Your task to perform on an android device: Open calendar and show me the fourth week of next month Image 0: 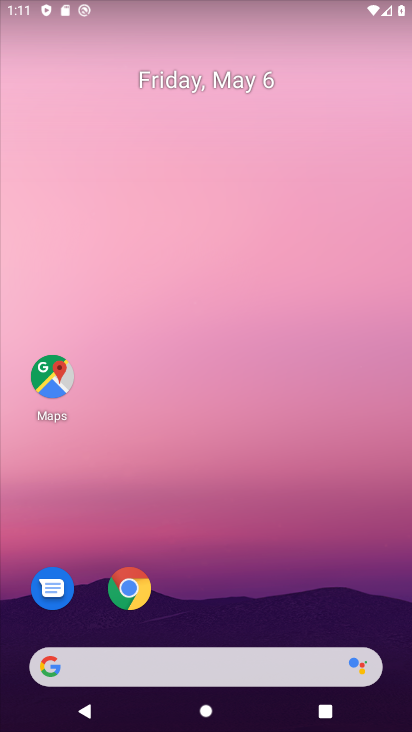
Step 0: drag from (359, 569) to (357, 42)
Your task to perform on an android device: Open calendar and show me the fourth week of next month Image 1: 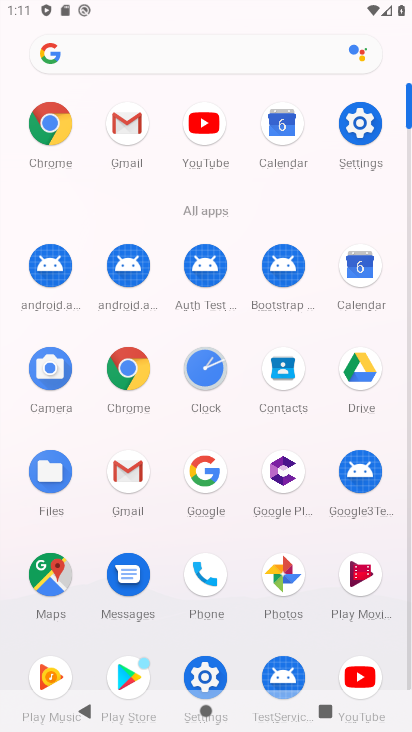
Step 1: click (361, 265)
Your task to perform on an android device: Open calendar and show me the fourth week of next month Image 2: 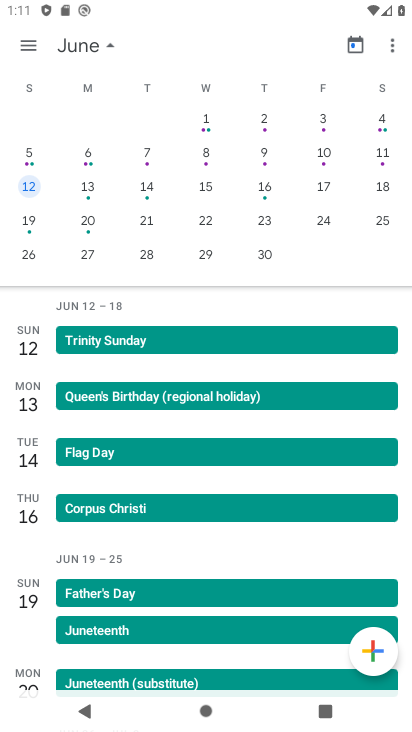
Step 2: click (31, 223)
Your task to perform on an android device: Open calendar and show me the fourth week of next month Image 3: 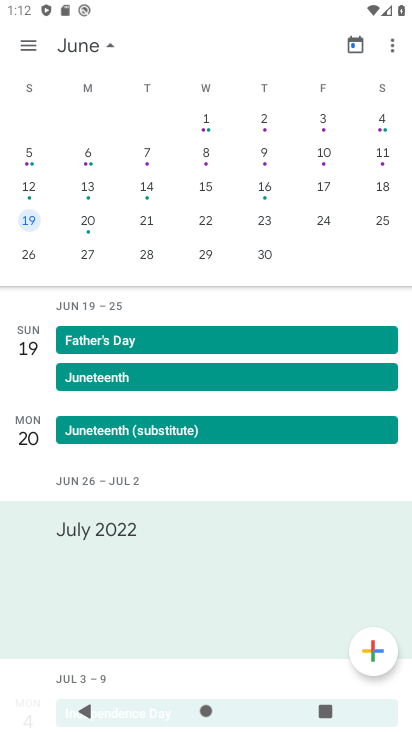
Step 3: task complete